Your task to perform on an android device: Check the weather Image 0: 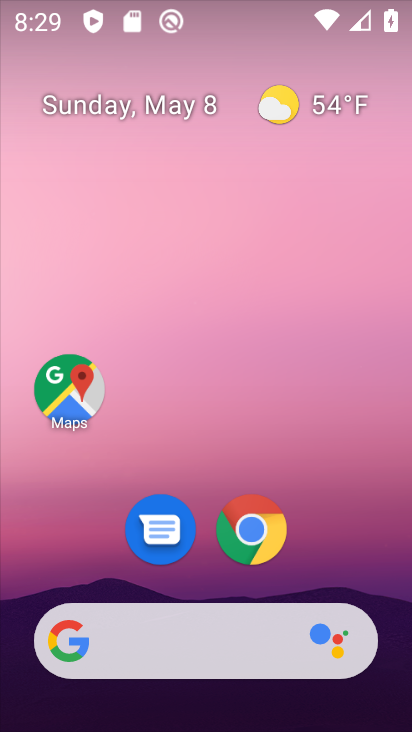
Step 0: drag from (392, 123) to (352, 198)
Your task to perform on an android device: Check the weather Image 1: 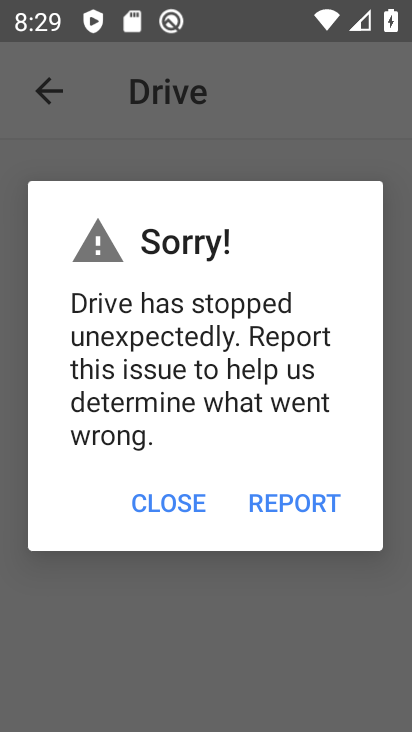
Step 1: press home button
Your task to perform on an android device: Check the weather Image 2: 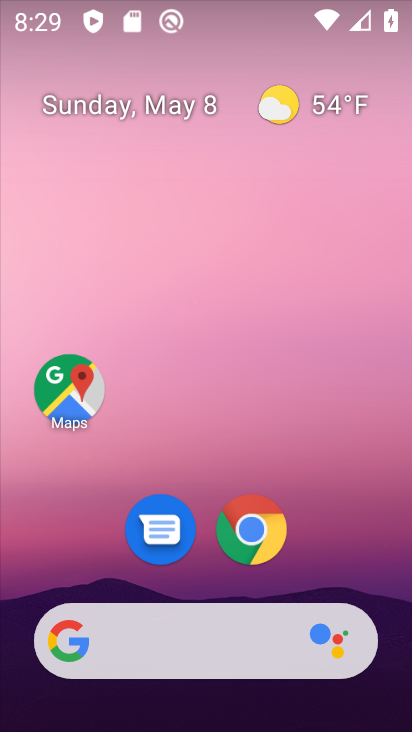
Step 2: drag from (327, 555) to (346, 130)
Your task to perform on an android device: Check the weather Image 3: 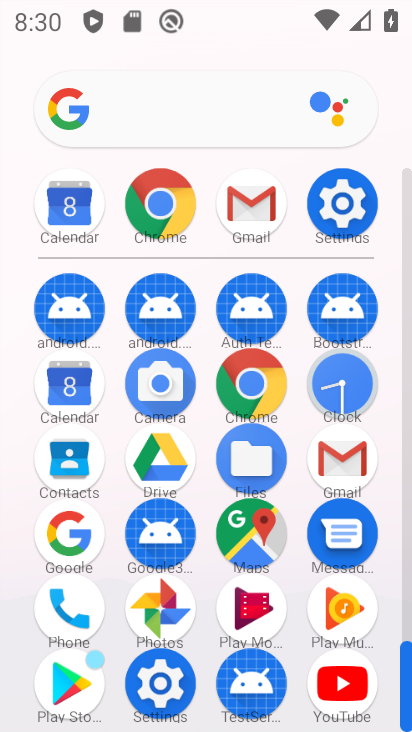
Step 3: click (247, 395)
Your task to perform on an android device: Check the weather Image 4: 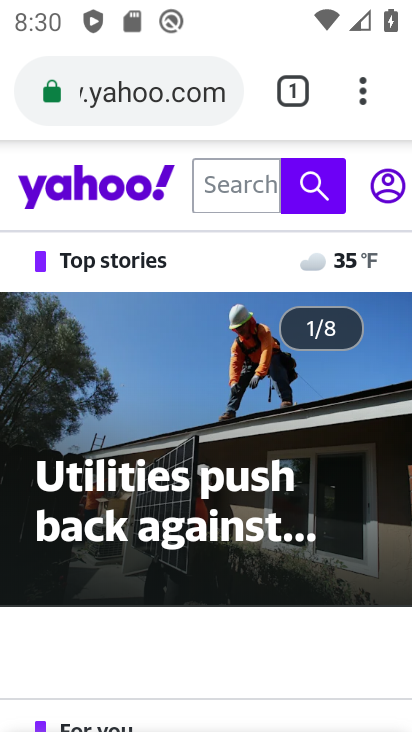
Step 4: click (200, 101)
Your task to perform on an android device: Check the weather Image 5: 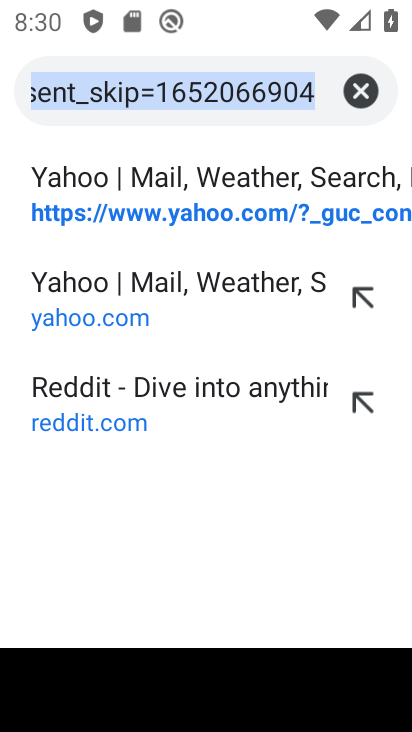
Step 5: click (368, 100)
Your task to perform on an android device: Check the weather Image 6: 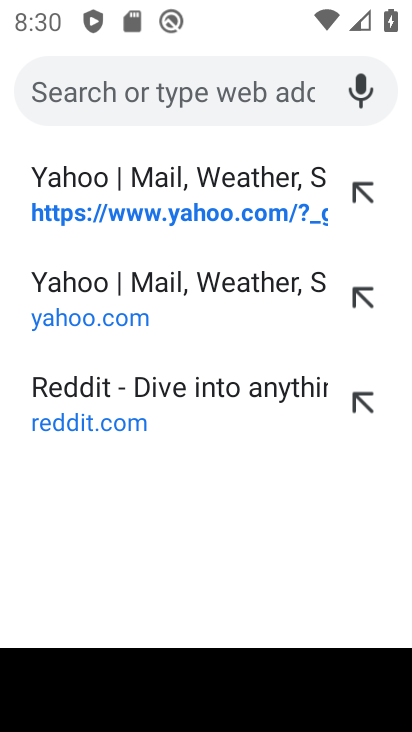
Step 6: type "check the weather"
Your task to perform on an android device: Check the weather Image 7: 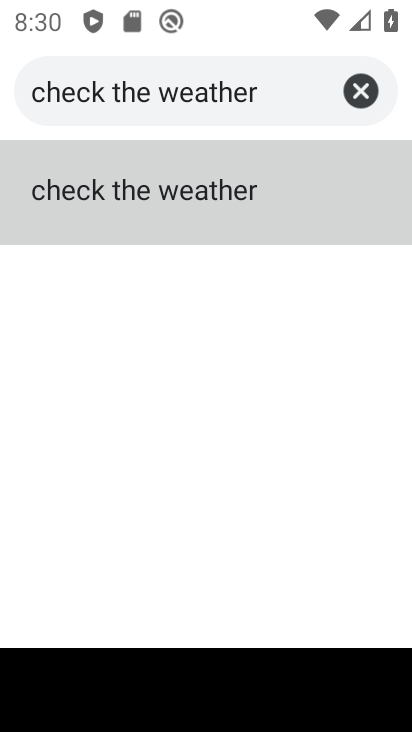
Step 7: click (147, 203)
Your task to perform on an android device: Check the weather Image 8: 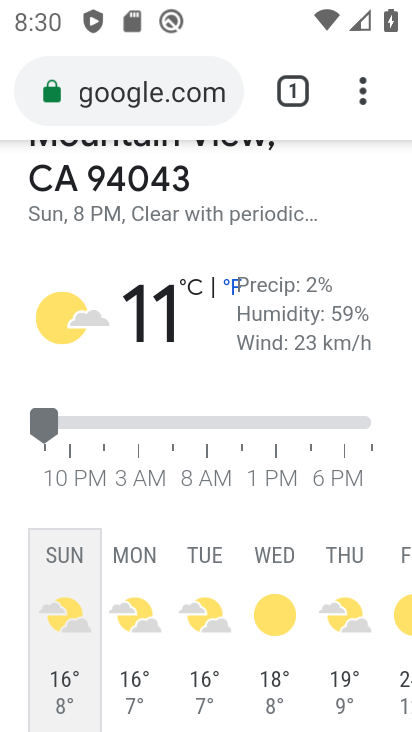
Step 8: task complete